Your task to perform on an android device: check android version Image 0: 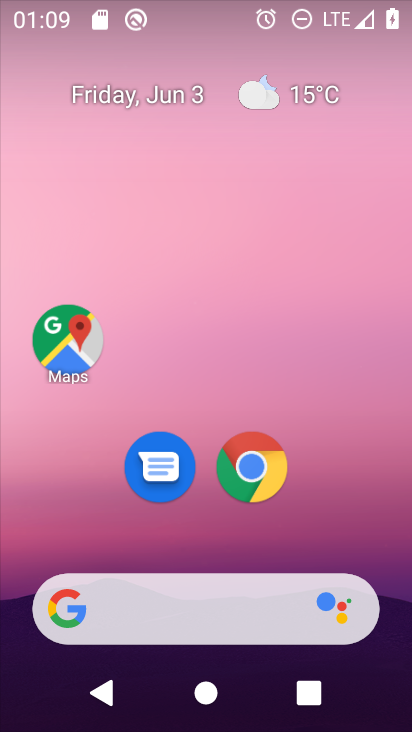
Step 0: click (253, 465)
Your task to perform on an android device: check android version Image 1: 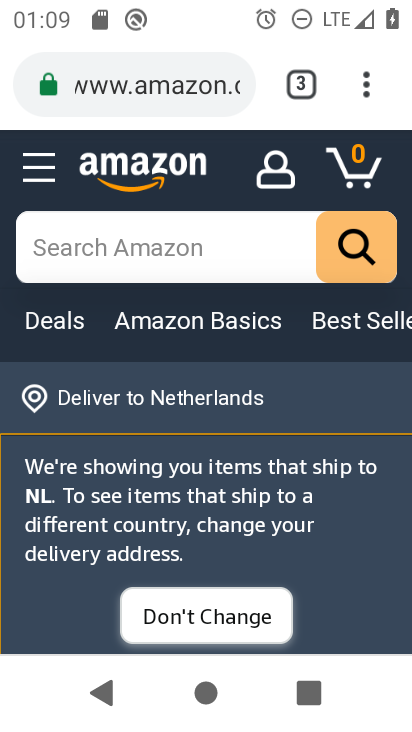
Step 1: press home button
Your task to perform on an android device: check android version Image 2: 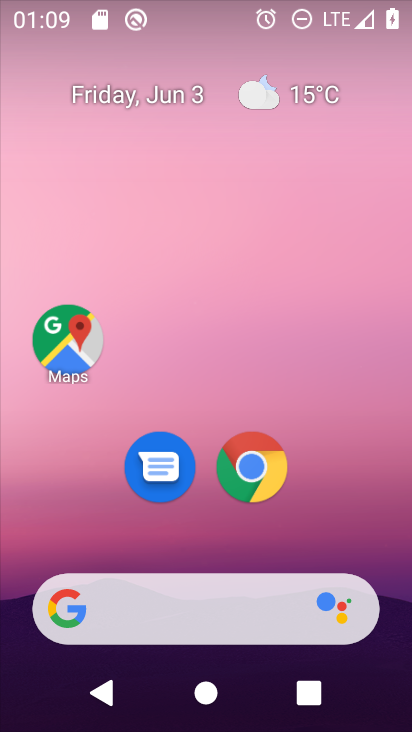
Step 2: drag from (399, 622) to (351, 140)
Your task to perform on an android device: check android version Image 3: 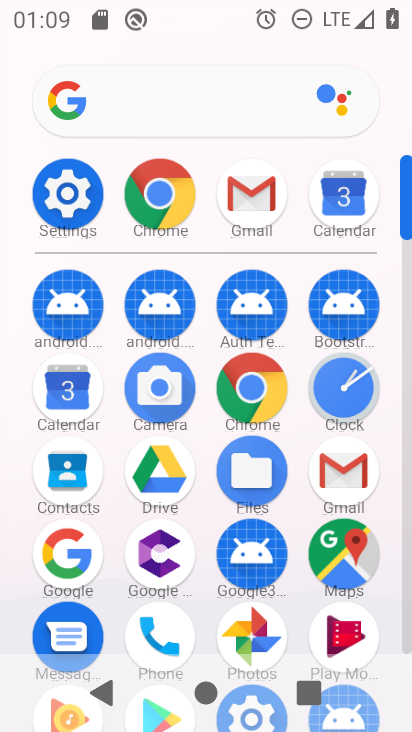
Step 3: click (405, 634)
Your task to perform on an android device: check android version Image 4: 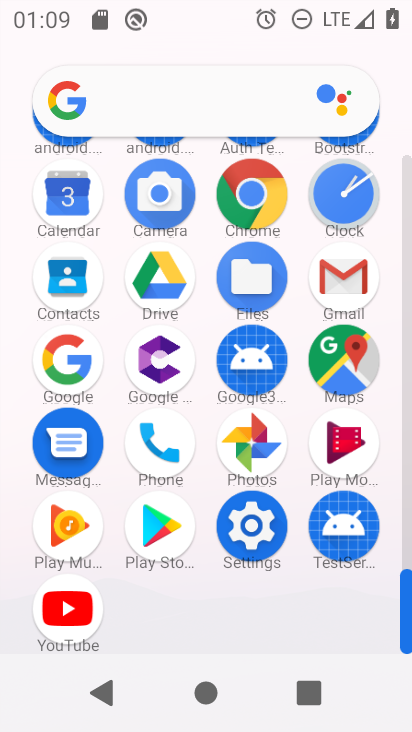
Step 4: click (257, 528)
Your task to perform on an android device: check android version Image 5: 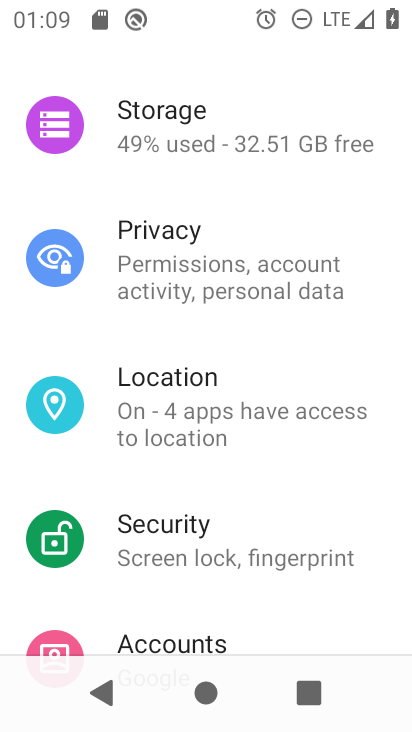
Step 5: drag from (326, 602) to (350, 137)
Your task to perform on an android device: check android version Image 6: 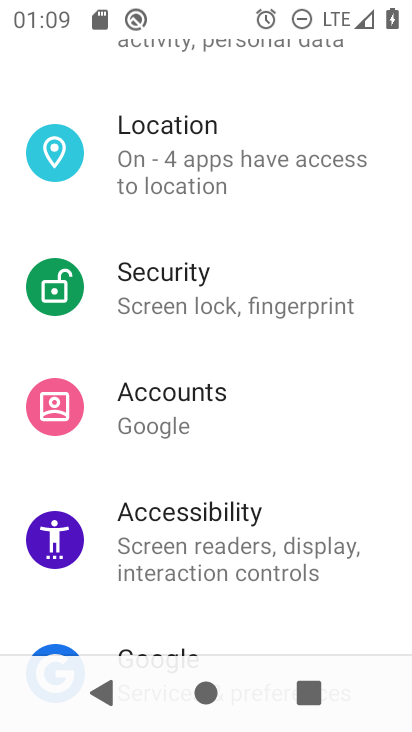
Step 6: drag from (366, 602) to (350, 158)
Your task to perform on an android device: check android version Image 7: 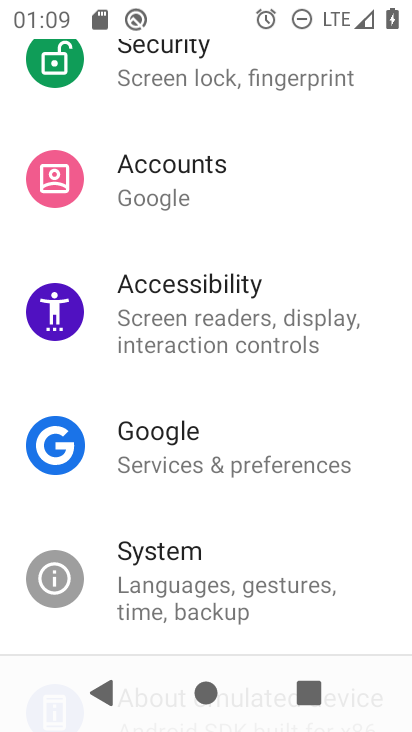
Step 7: drag from (346, 541) to (341, 71)
Your task to perform on an android device: check android version Image 8: 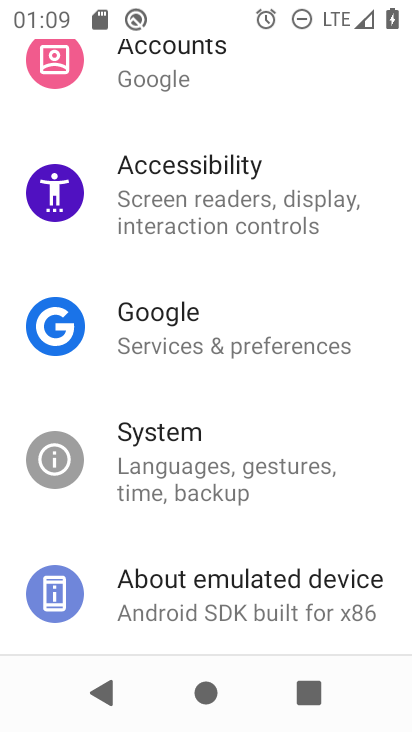
Step 8: click (170, 595)
Your task to perform on an android device: check android version Image 9: 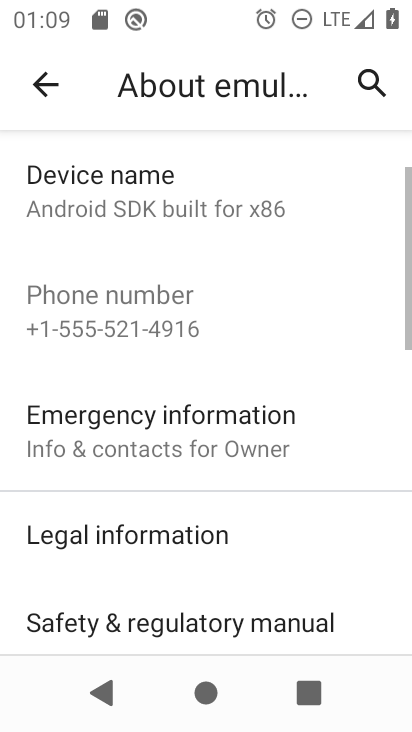
Step 9: drag from (327, 562) to (313, 195)
Your task to perform on an android device: check android version Image 10: 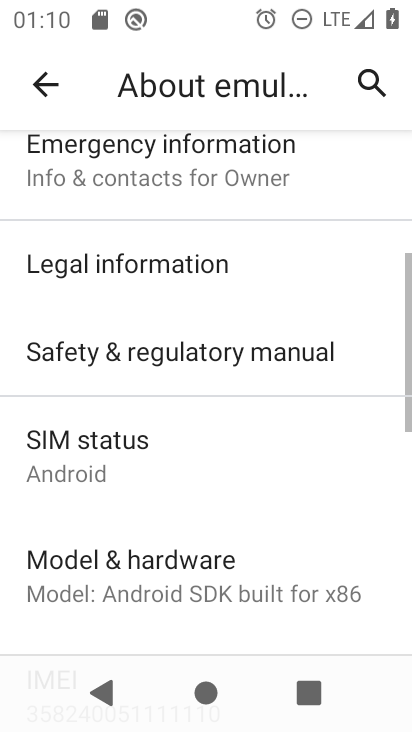
Step 10: drag from (316, 501) to (327, 174)
Your task to perform on an android device: check android version Image 11: 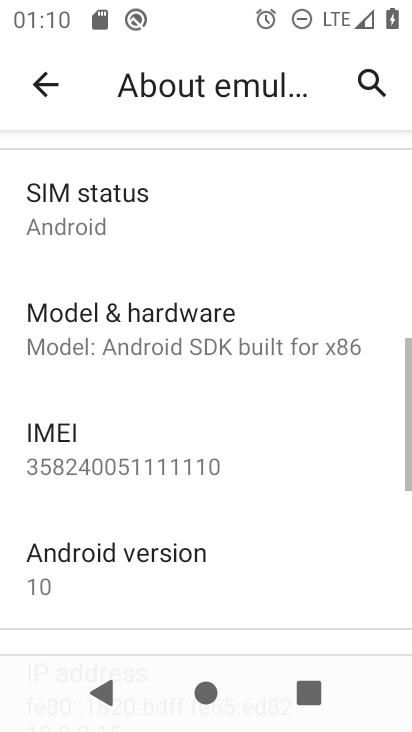
Step 11: drag from (257, 605) to (298, 337)
Your task to perform on an android device: check android version Image 12: 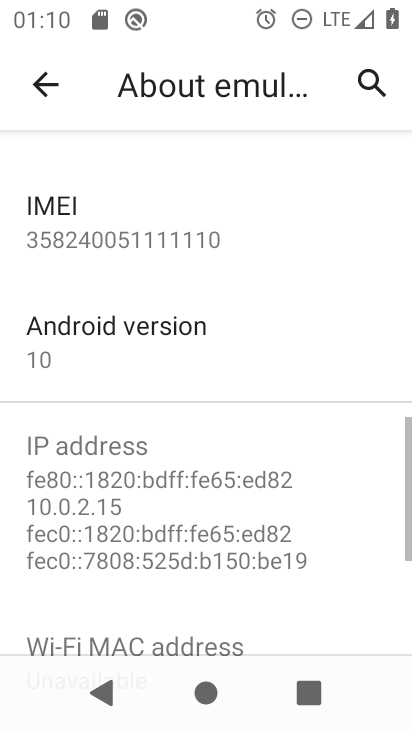
Step 12: click (82, 330)
Your task to perform on an android device: check android version Image 13: 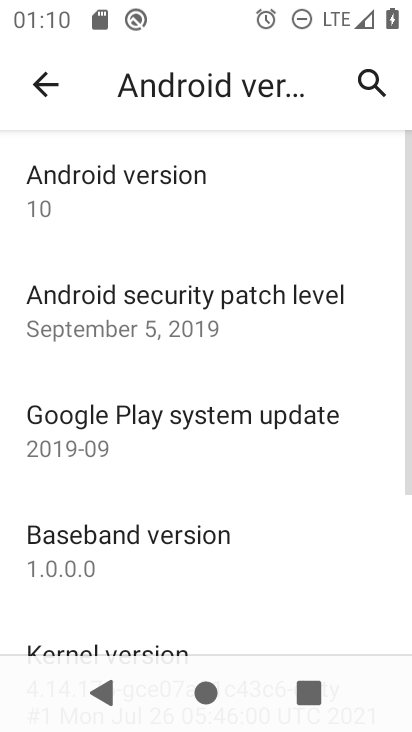
Step 13: task complete